Your task to perform on an android device: delete a single message in the gmail app Image 0: 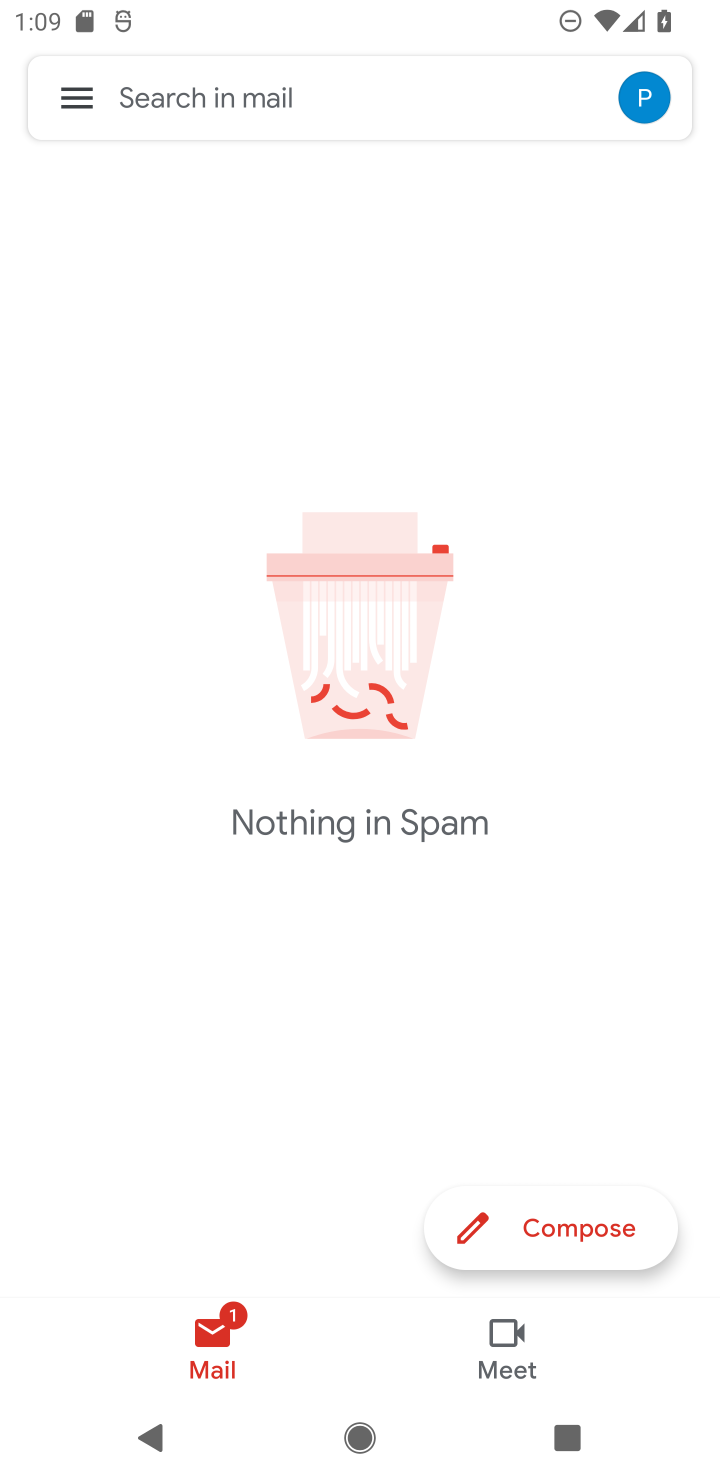
Step 0: click (82, 110)
Your task to perform on an android device: delete a single message in the gmail app Image 1: 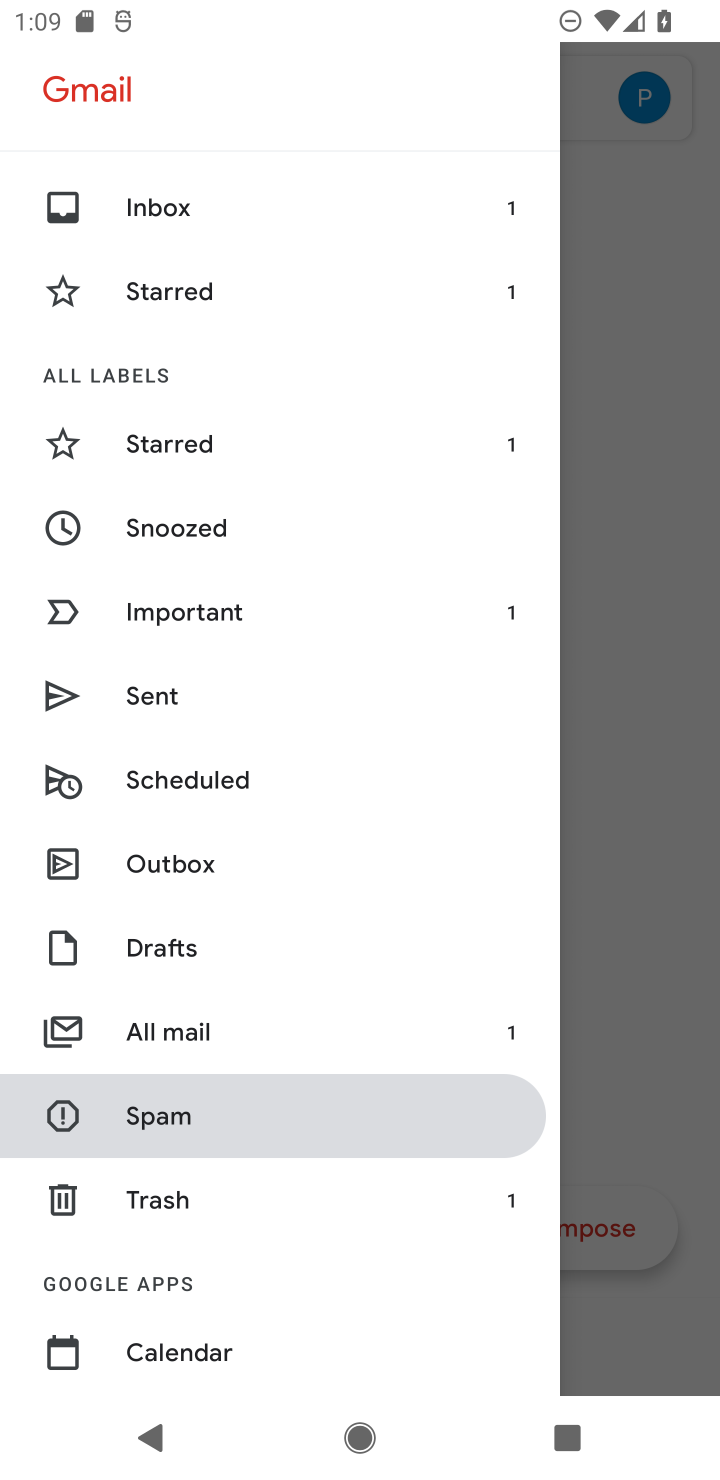
Step 1: click (172, 185)
Your task to perform on an android device: delete a single message in the gmail app Image 2: 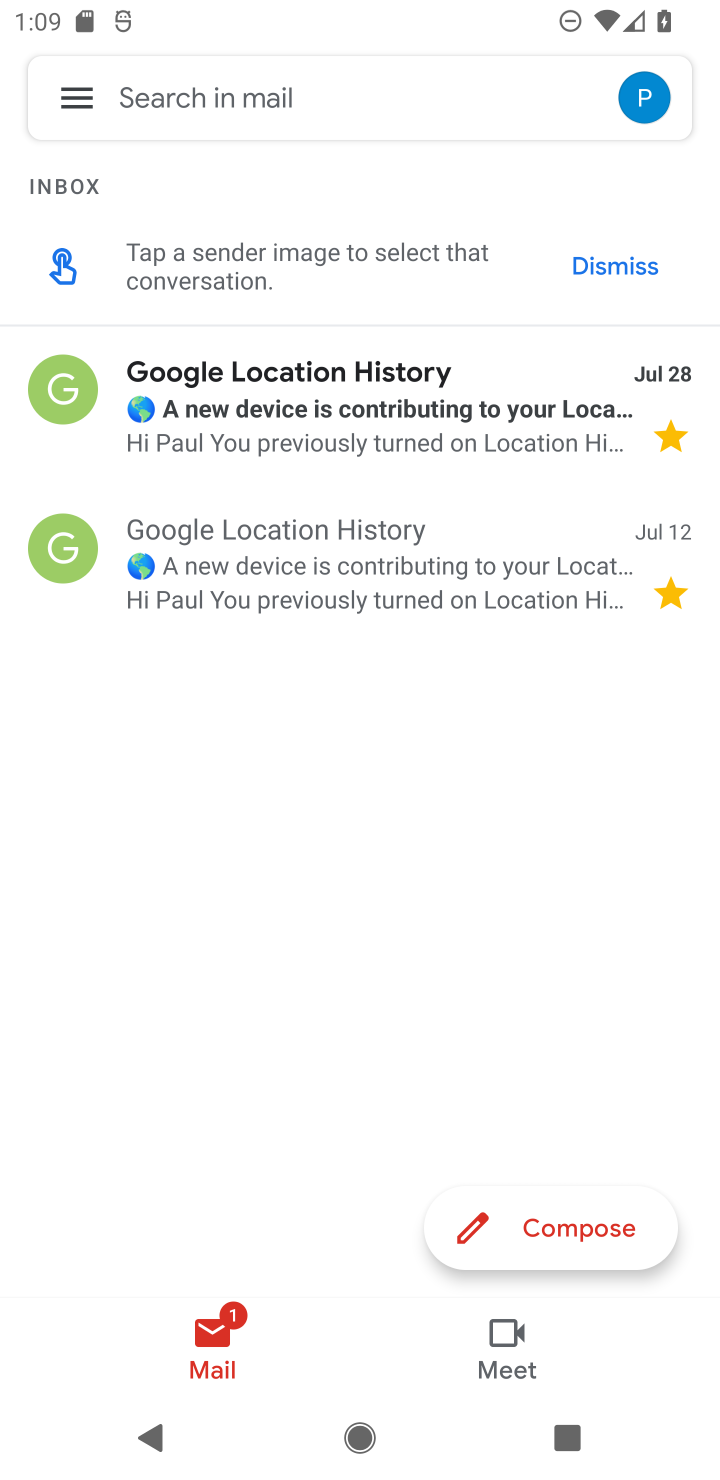
Step 2: click (313, 558)
Your task to perform on an android device: delete a single message in the gmail app Image 3: 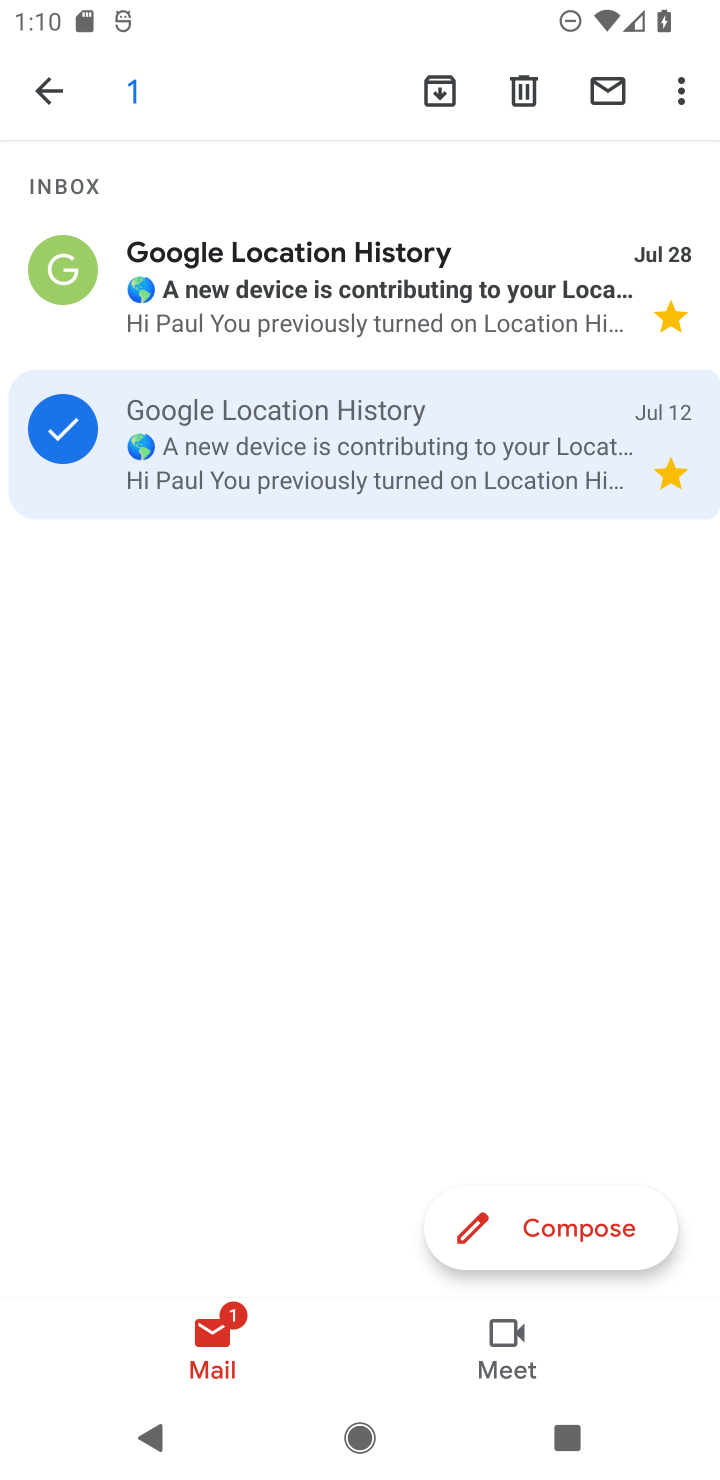
Step 3: click (516, 102)
Your task to perform on an android device: delete a single message in the gmail app Image 4: 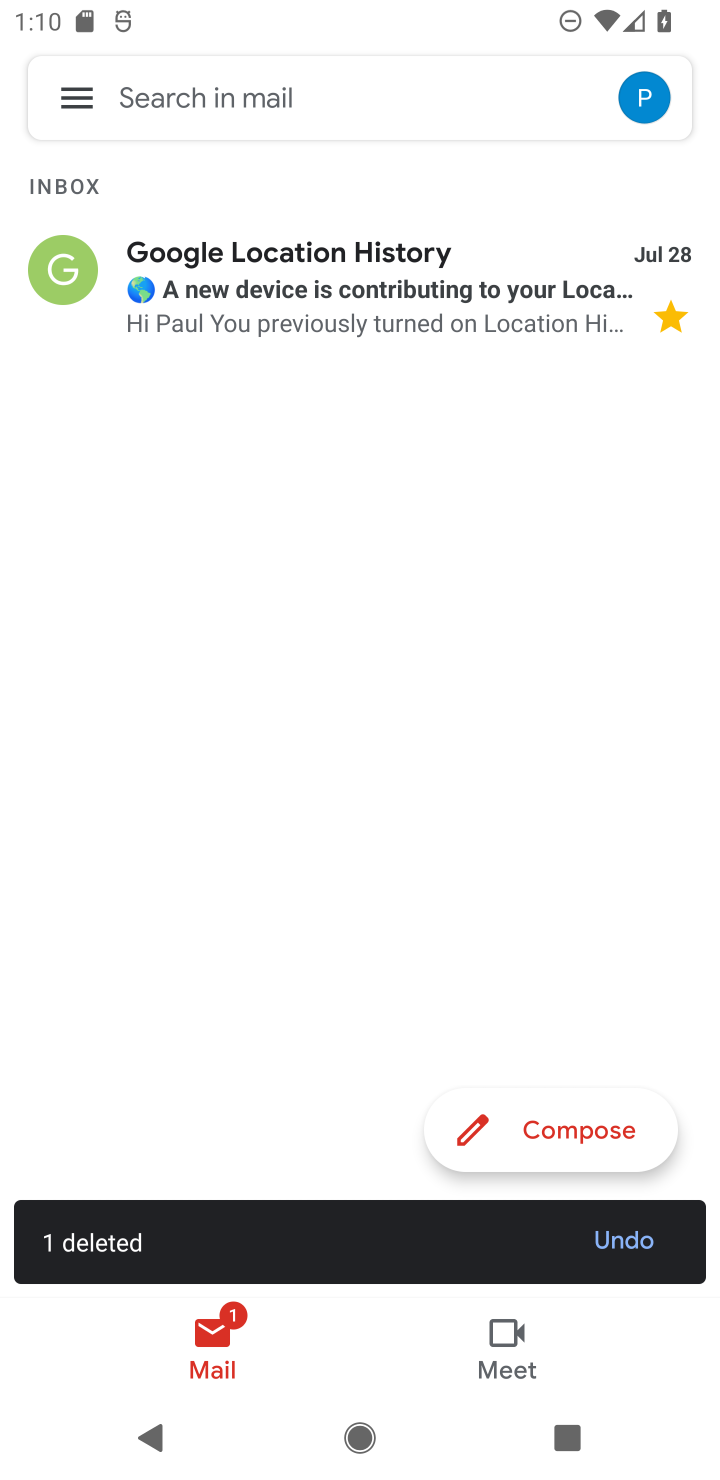
Step 4: task complete